Your task to perform on an android device: find snoozed emails in the gmail app Image 0: 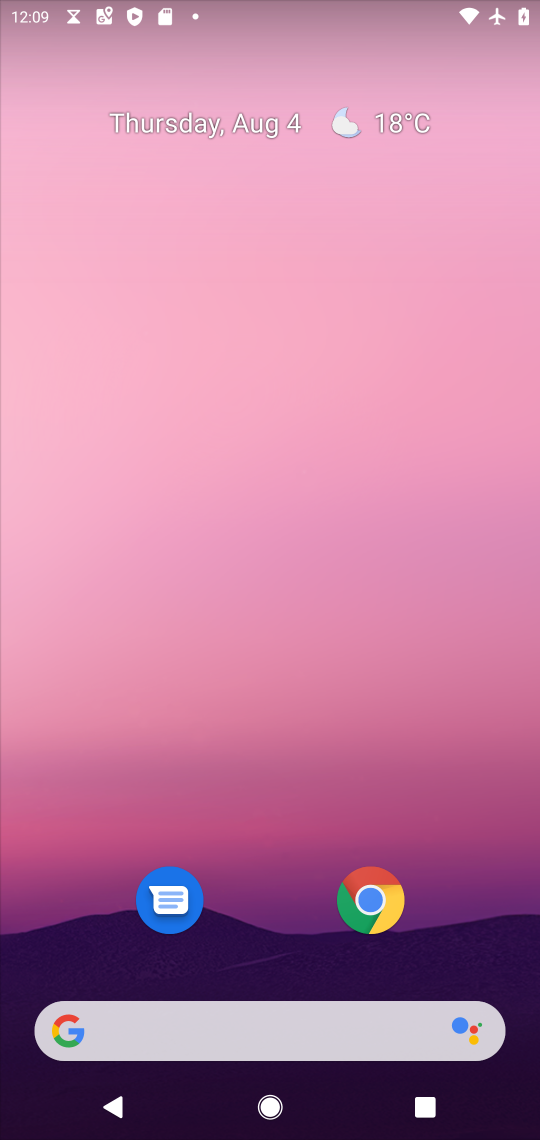
Step 0: press home button
Your task to perform on an android device: find snoozed emails in the gmail app Image 1: 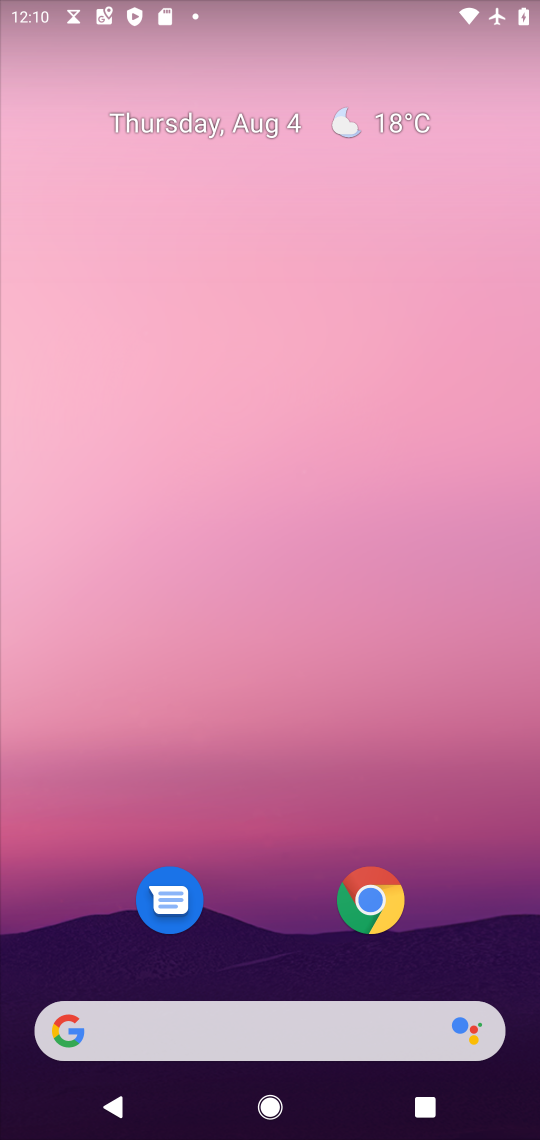
Step 1: drag from (291, 806) to (179, 54)
Your task to perform on an android device: find snoozed emails in the gmail app Image 2: 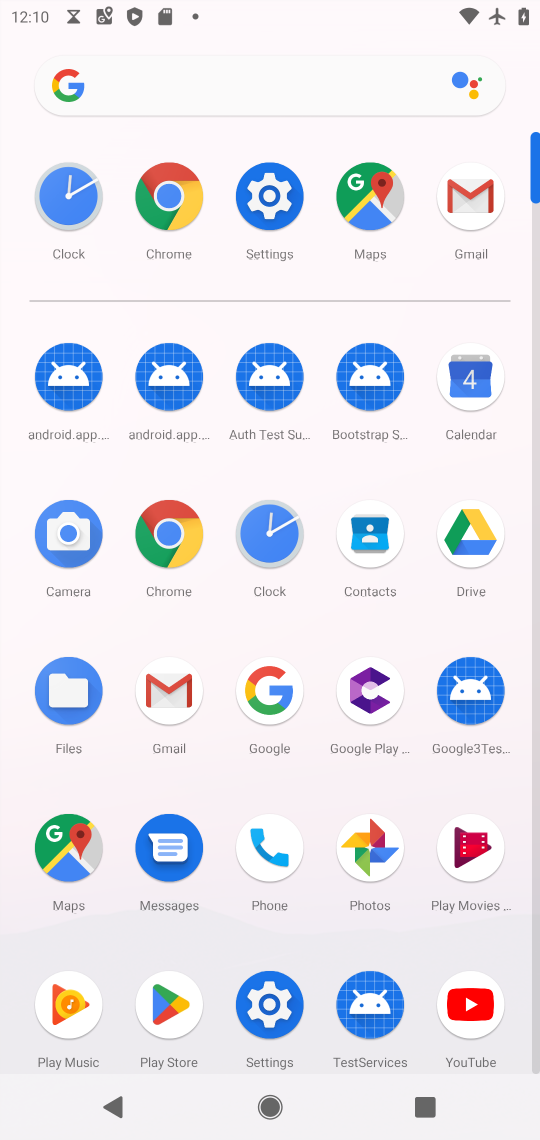
Step 2: click (477, 196)
Your task to perform on an android device: find snoozed emails in the gmail app Image 3: 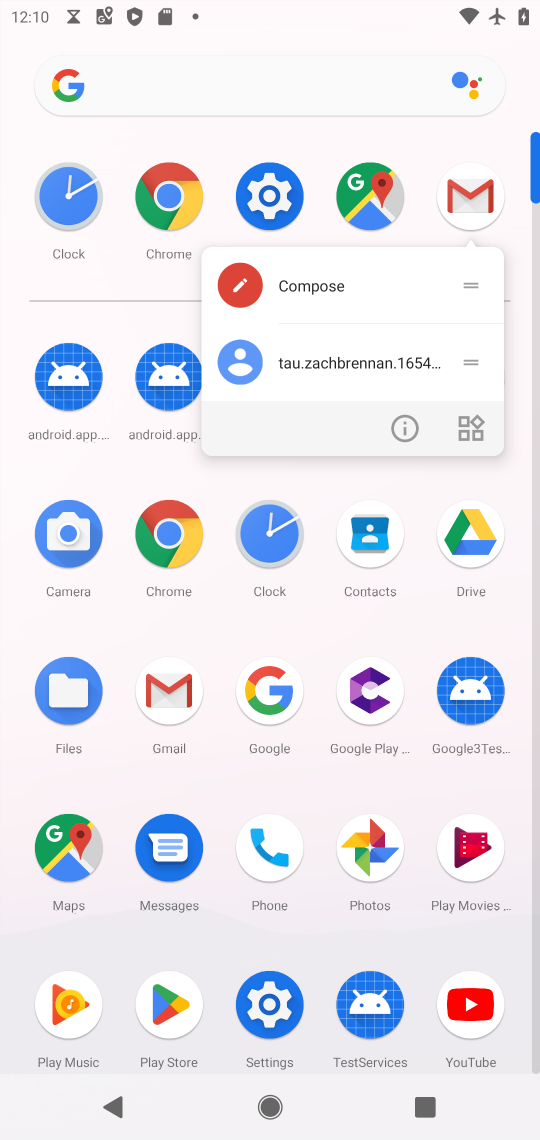
Step 3: click (477, 196)
Your task to perform on an android device: find snoozed emails in the gmail app Image 4: 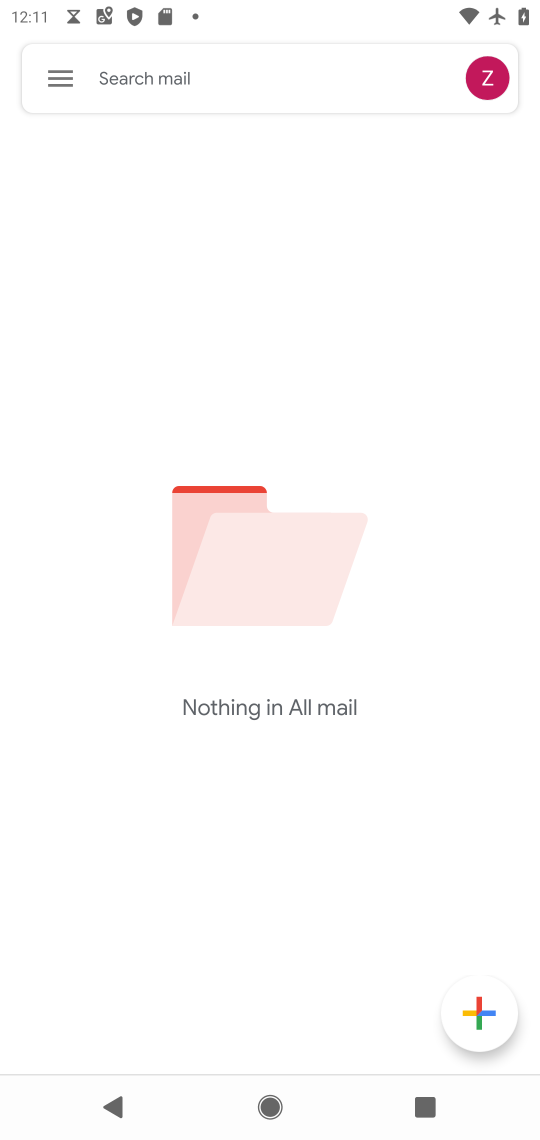
Step 4: click (65, 75)
Your task to perform on an android device: find snoozed emails in the gmail app Image 5: 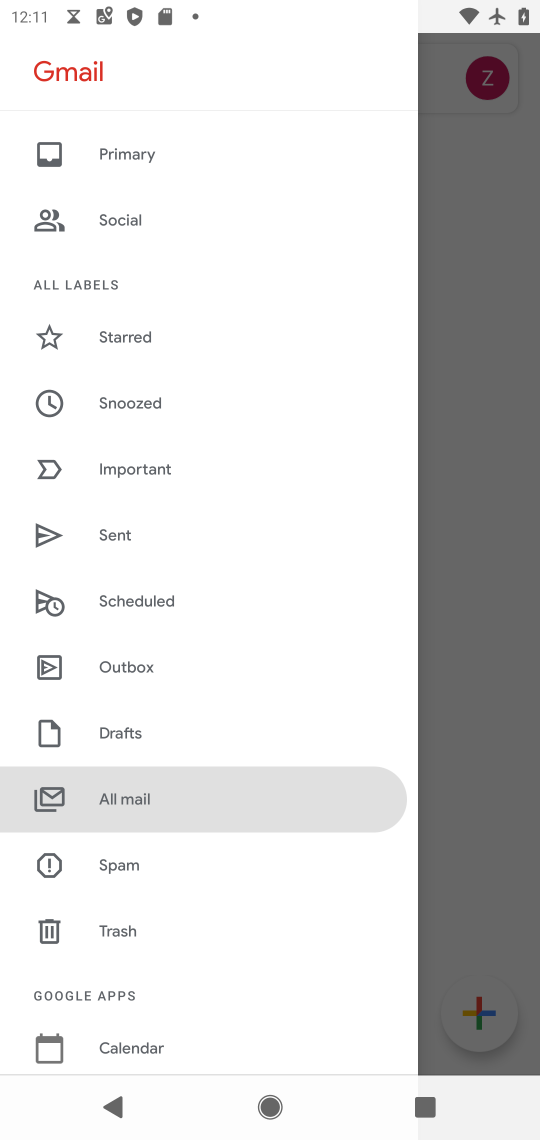
Step 5: click (127, 414)
Your task to perform on an android device: find snoozed emails in the gmail app Image 6: 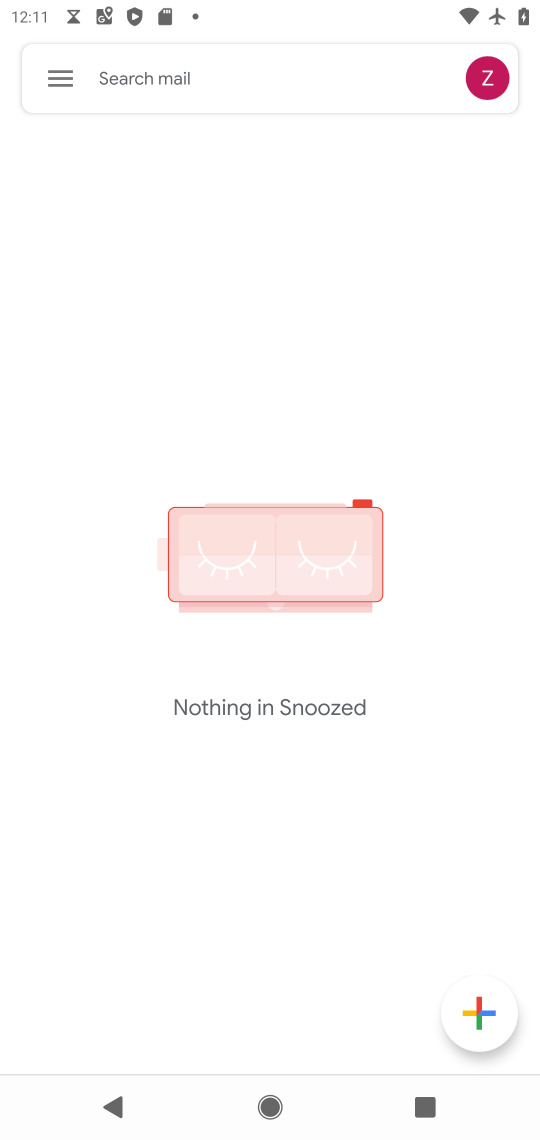
Step 6: task complete